Your task to perform on an android device: Open Yahoo.com Image 0: 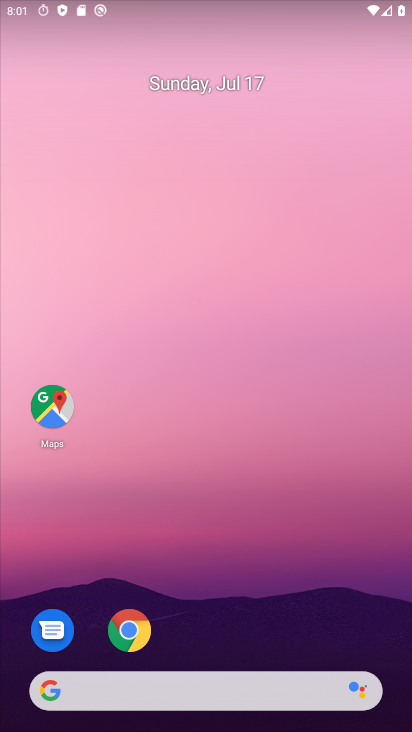
Step 0: click (87, 699)
Your task to perform on an android device: Open Yahoo.com Image 1: 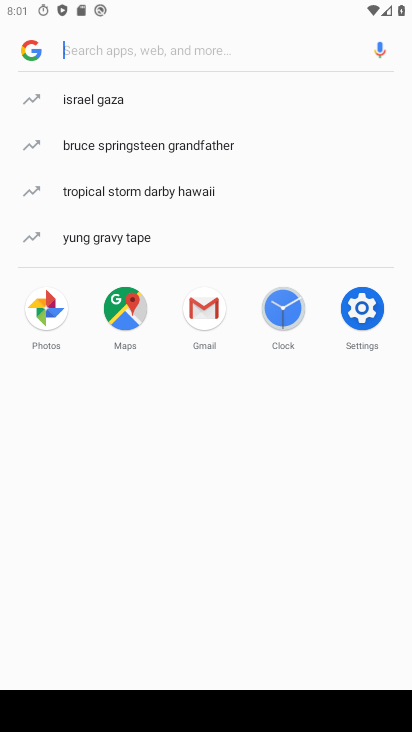
Step 1: type " Yahoo.com"
Your task to perform on an android device: Open Yahoo.com Image 2: 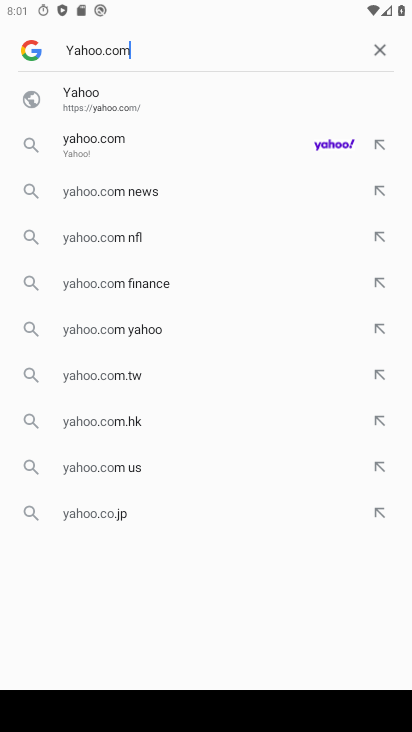
Step 2: type ""
Your task to perform on an android device: Open Yahoo.com Image 3: 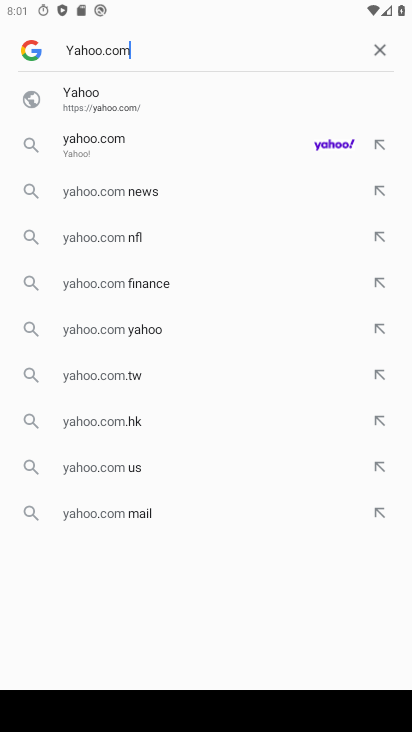
Step 3: click (123, 105)
Your task to perform on an android device: Open Yahoo.com Image 4: 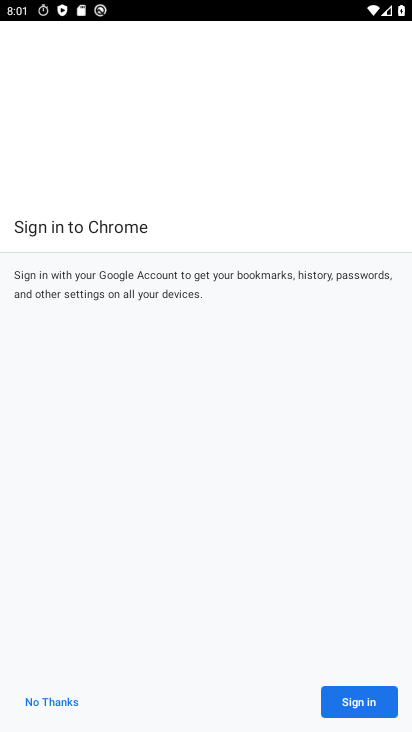
Step 4: click (28, 692)
Your task to perform on an android device: Open Yahoo.com Image 5: 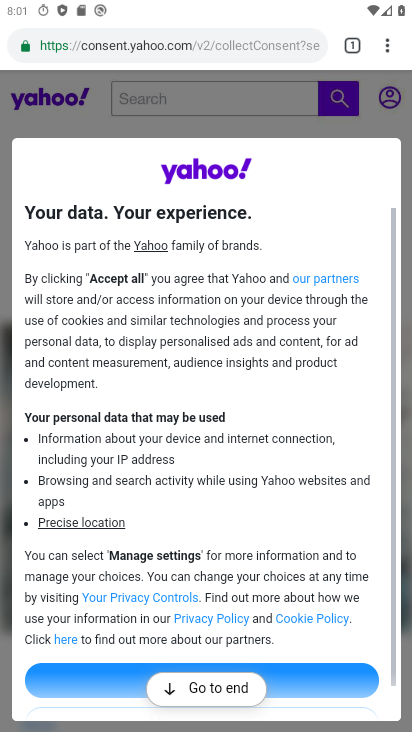
Step 5: task complete